Your task to perform on an android device: toggle data saver in the chrome app Image 0: 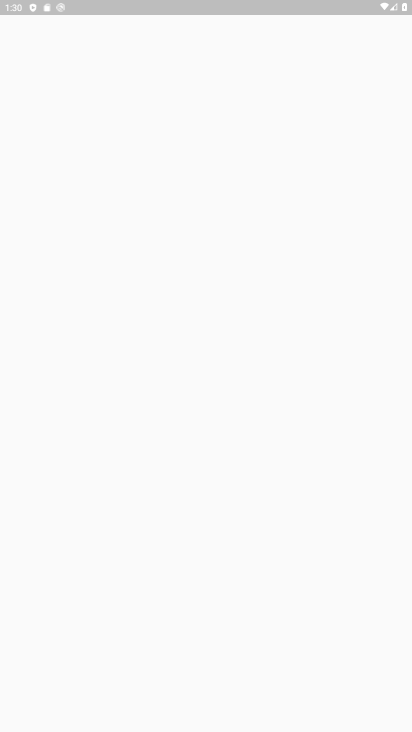
Step 0: press home button
Your task to perform on an android device: toggle data saver in the chrome app Image 1: 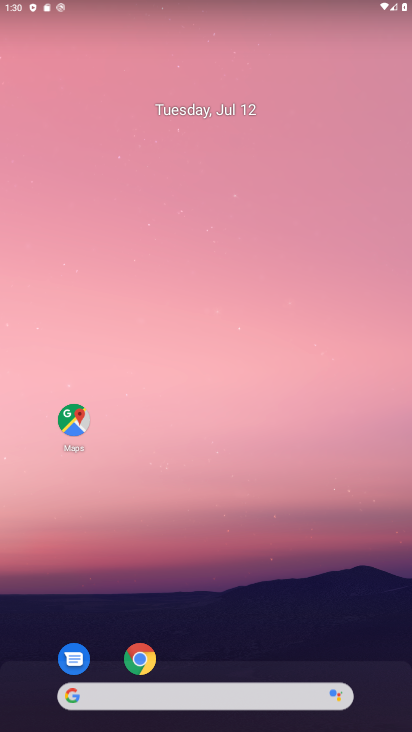
Step 1: click (141, 662)
Your task to perform on an android device: toggle data saver in the chrome app Image 2: 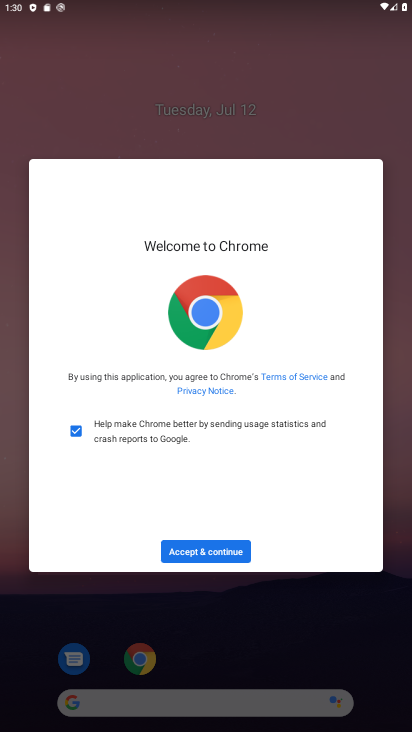
Step 2: click (201, 553)
Your task to perform on an android device: toggle data saver in the chrome app Image 3: 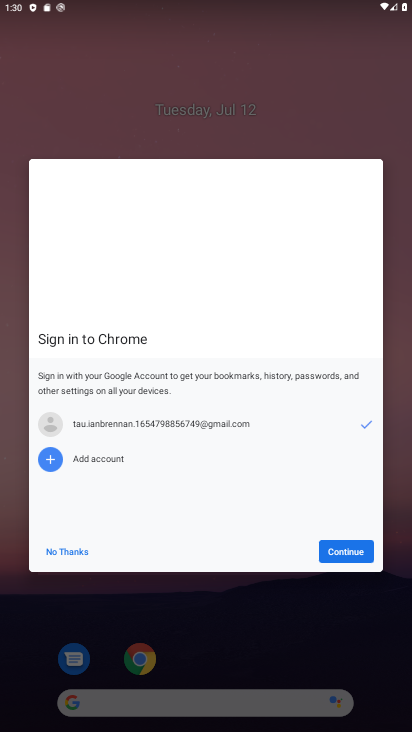
Step 3: click (340, 556)
Your task to perform on an android device: toggle data saver in the chrome app Image 4: 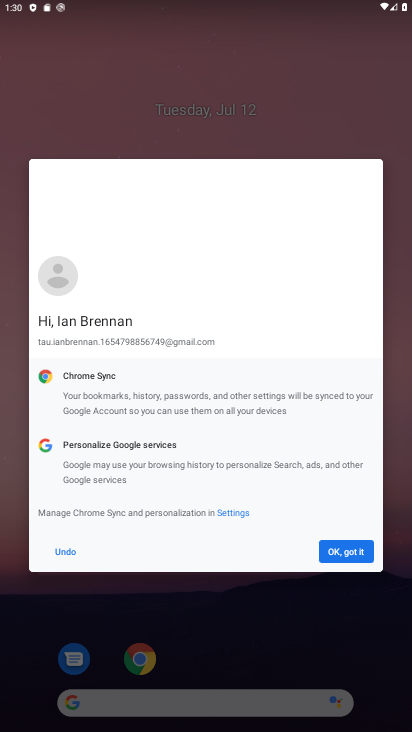
Step 4: click (340, 556)
Your task to perform on an android device: toggle data saver in the chrome app Image 5: 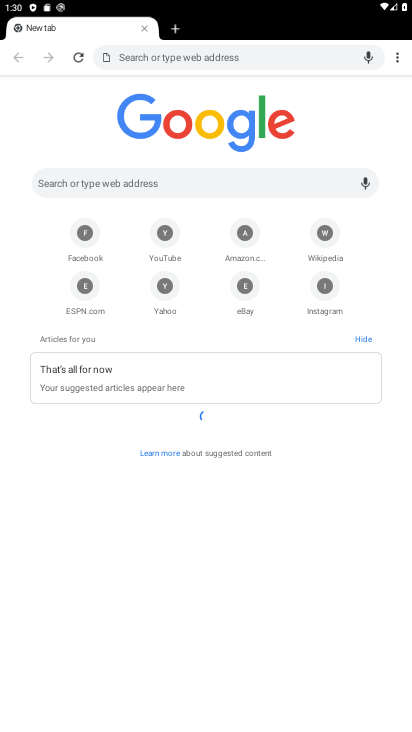
Step 5: click (395, 54)
Your task to perform on an android device: toggle data saver in the chrome app Image 6: 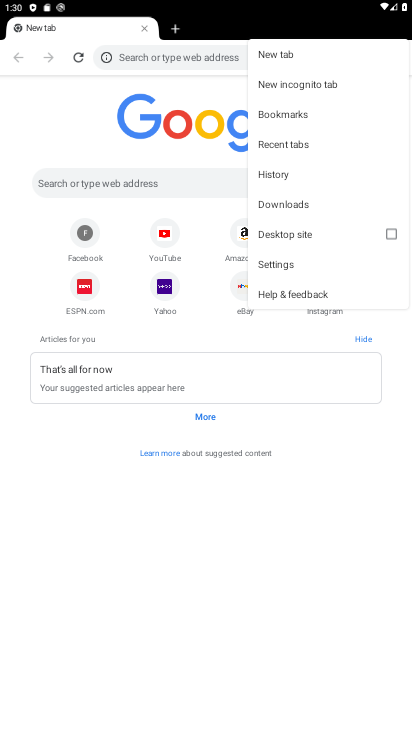
Step 6: click (291, 260)
Your task to perform on an android device: toggle data saver in the chrome app Image 7: 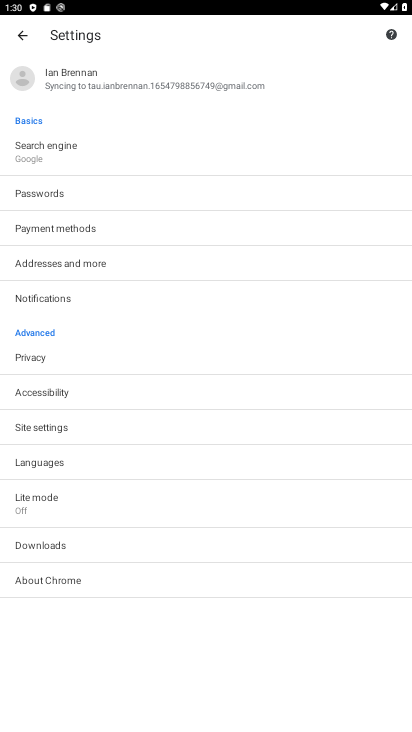
Step 7: click (41, 499)
Your task to perform on an android device: toggle data saver in the chrome app Image 8: 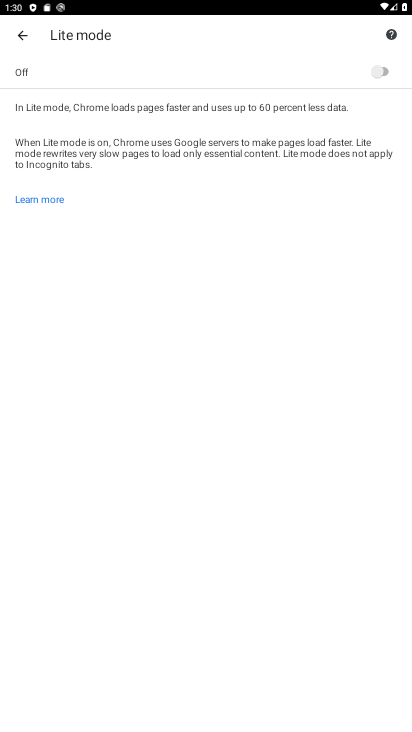
Step 8: click (380, 70)
Your task to perform on an android device: toggle data saver in the chrome app Image 9: 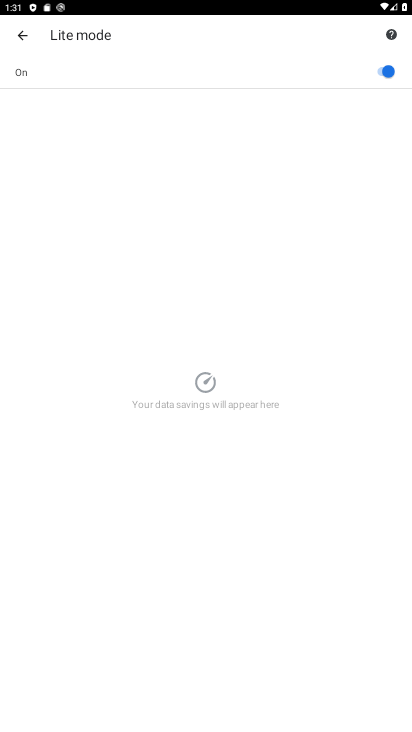
Step 9: task complete